Your task to perform on an android device: find which apps use the phone's location Image 0: 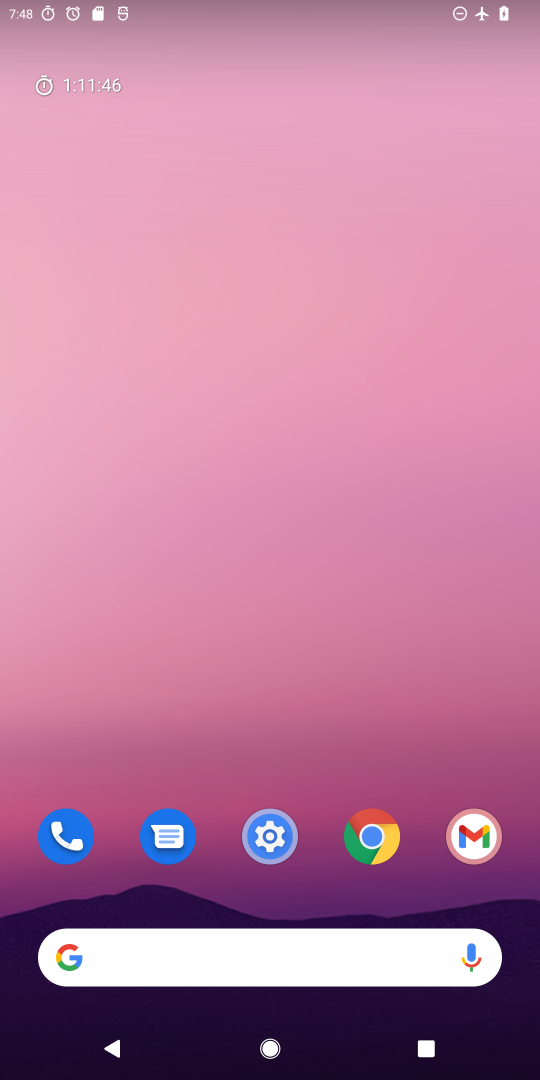
Step 0: drag from (257, 889) to (276, 321)
Your task to perform on an android device: find which apps use the phone's location Image 1: 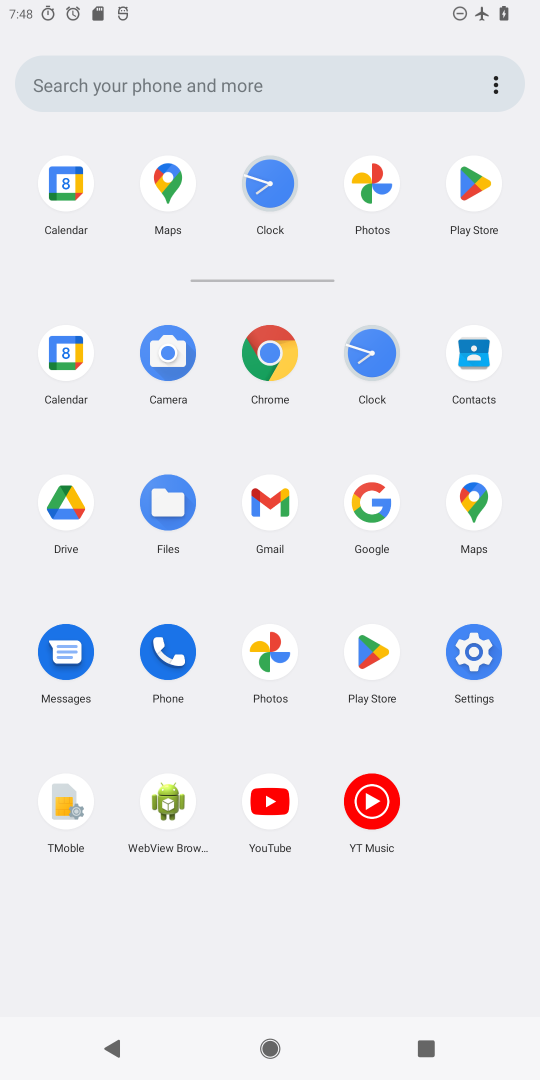
Step 1: click (505, 646)
Your task to perform on an android device: find which apps use the phone's location Image 2: 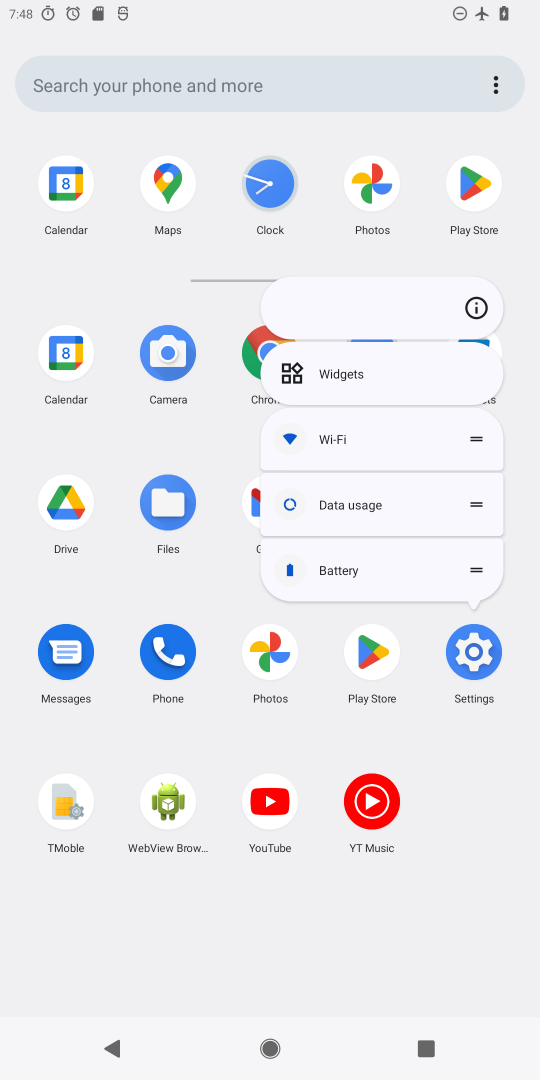
Step 2: click (497, 649)
Your task to perform on an android device: find which apps use the phone's location Image 3: 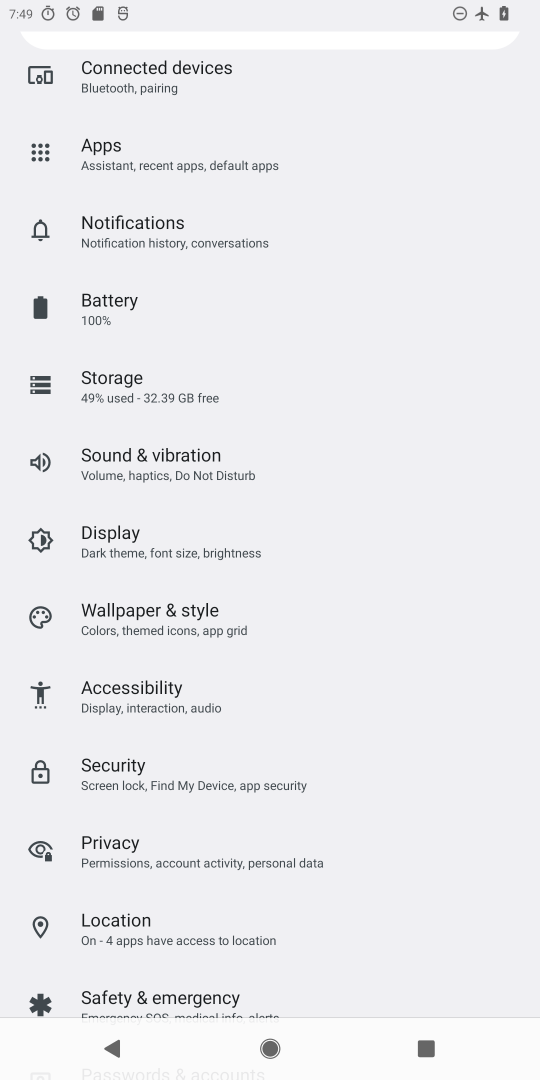
Step 3: click (174, 925)
Your task to perform on an android device: find which apps use the phone's location Image 4: 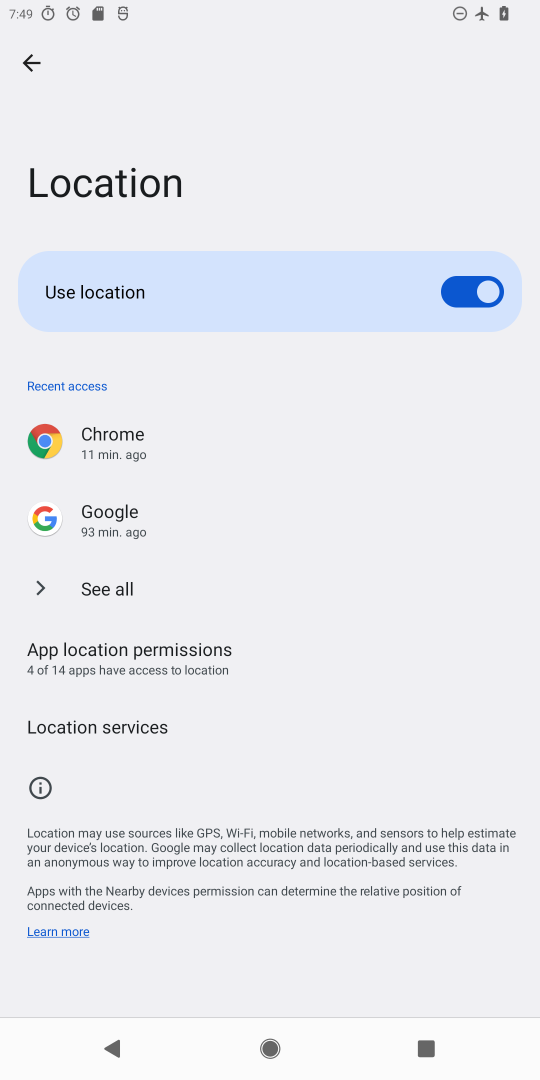
Step 4: click (141, 599)
Your task to perform on an android device: find which apps use the phone's location Image 5: 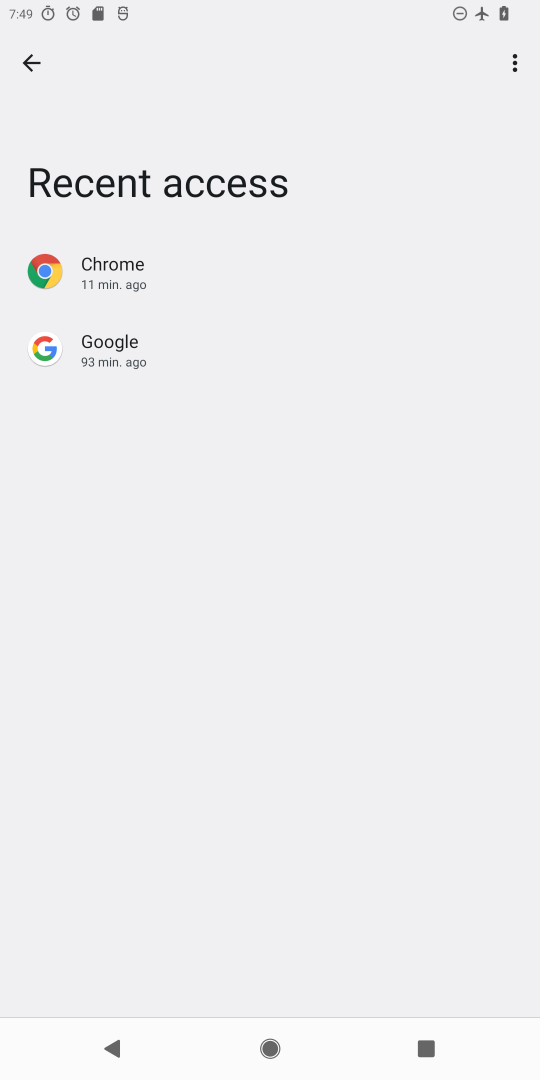
Step 5: task complete